Your task to perform on an android device: Open notification settings Image 0: 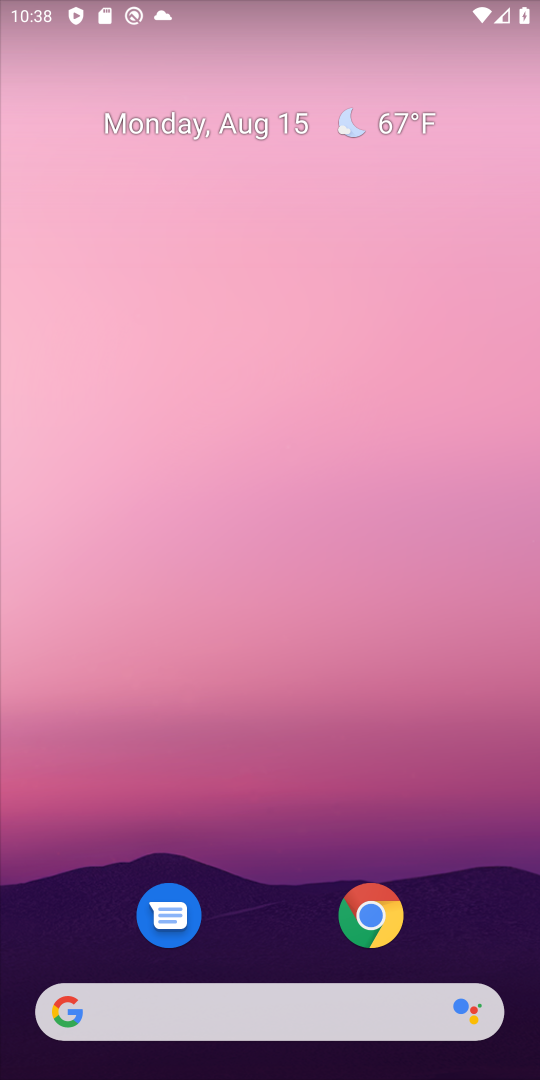
Step 0: drag from (458, 890) to (366, 197)
Your task to perform on an android device: Open notification settings Image 1: 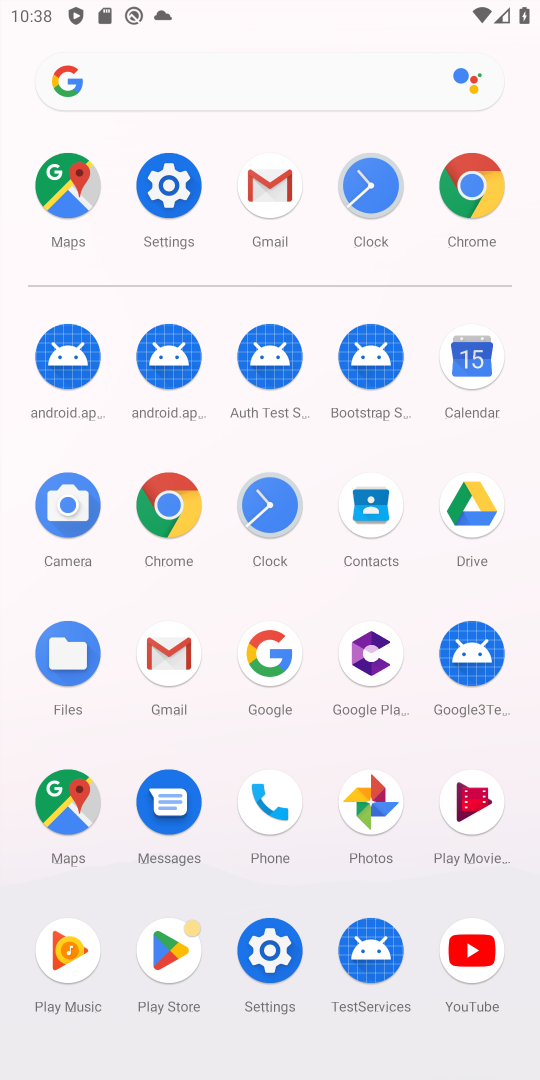
Step 1: click (261, 942)
Your task to perform on an android device: Open notification settings Image 2: 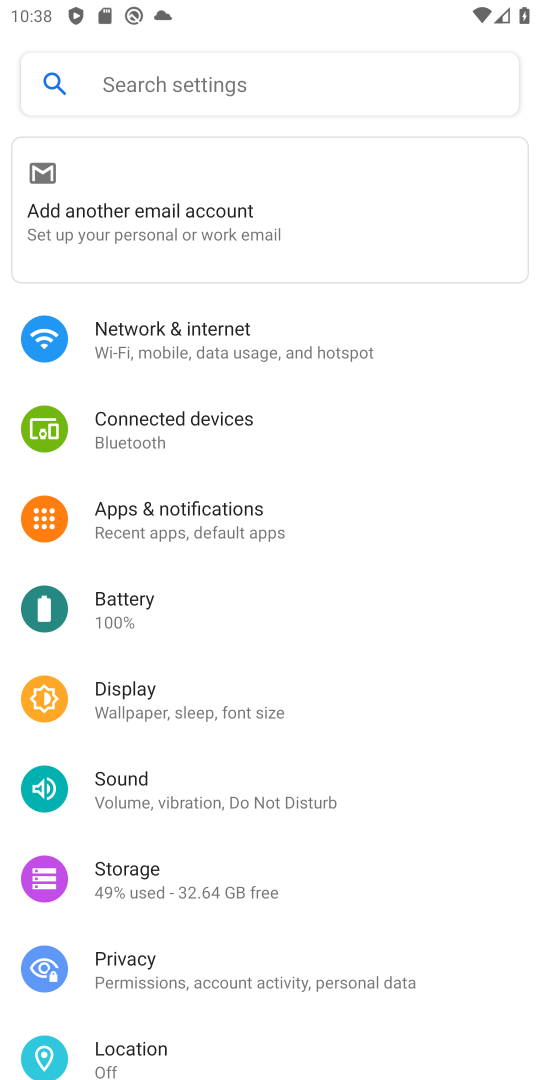
Step 2: click (249, 528)
Your task to perform on an android device: Open notification settings Image 3: 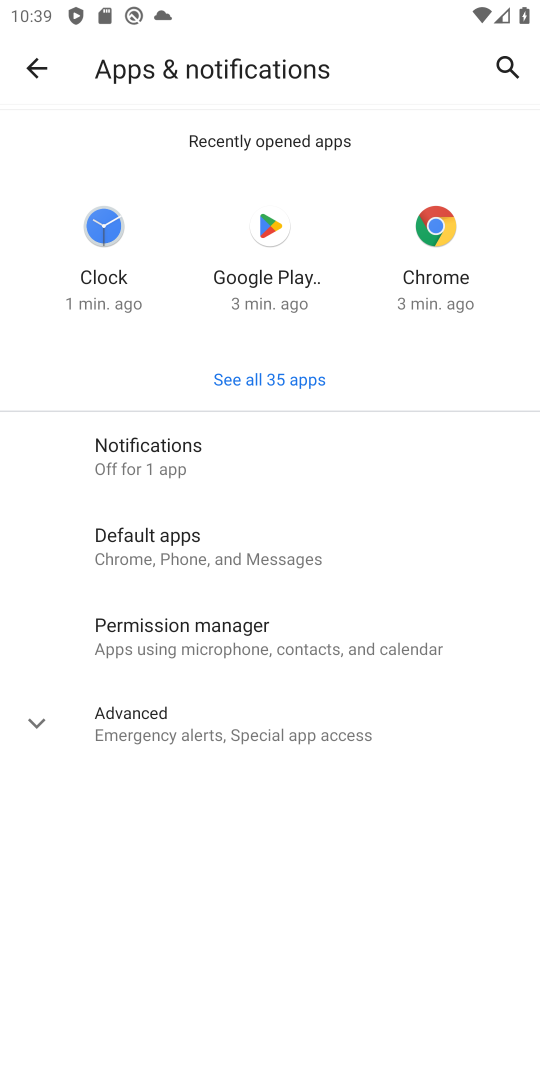
Step 3: task complete